Your task to perform on an android device: Open Google Maps Image 0: 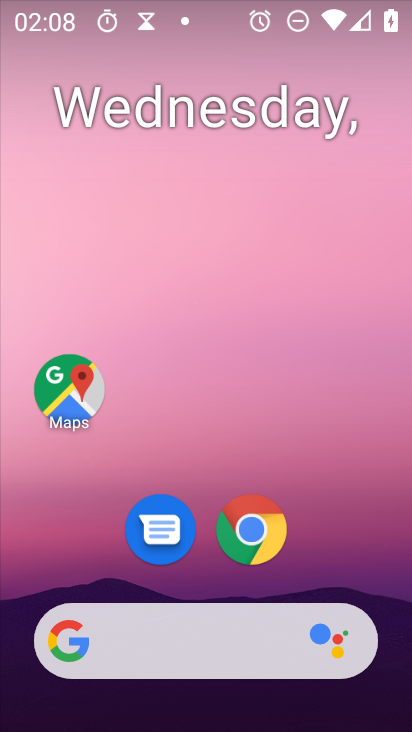
Step 0: drag from (160, 517) to (216, 2)
Your task to perform on an android device: Open Google Maps Image 1: 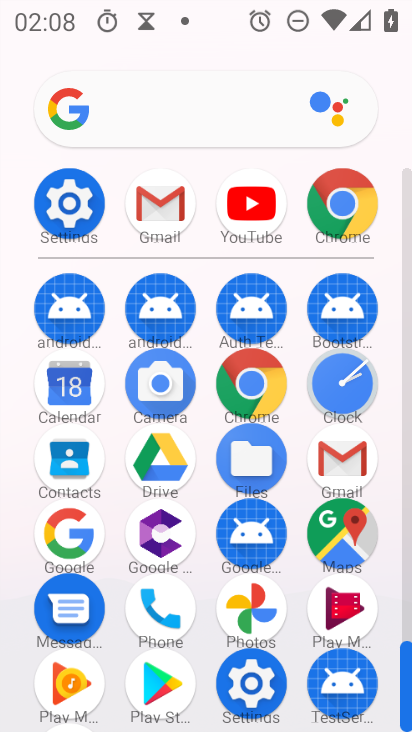
Step 1: click (341, 543)
Your task to perform on an android device: Open Google Maps Image 2: 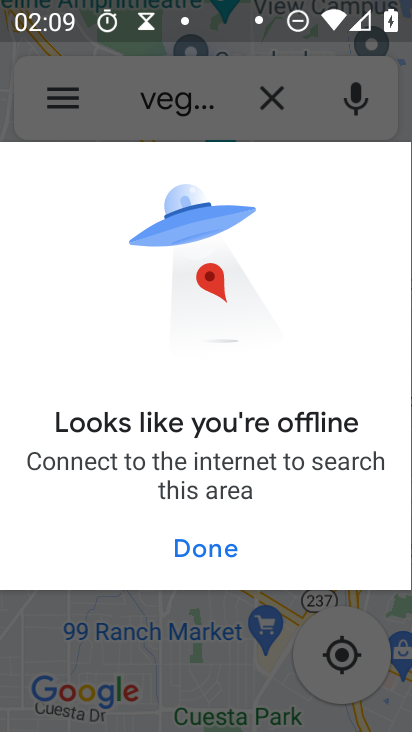
Step 2: click (211, 547)
Your task to perform on an android device: Open Google Maps Image 3: 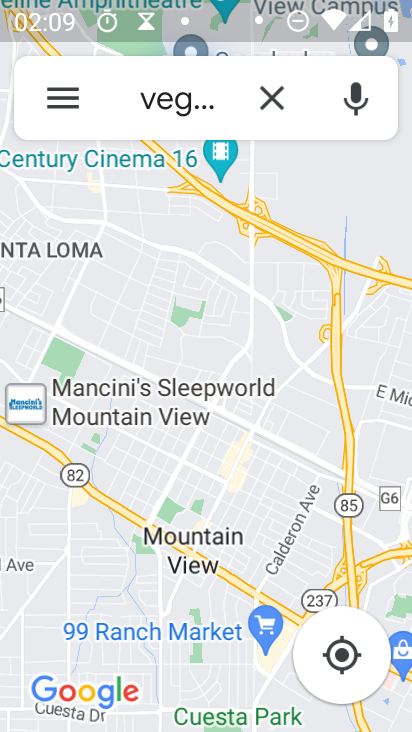
Step 3: task complete